Your task to perform on an android device: Set an alarm for 8am Image 0: 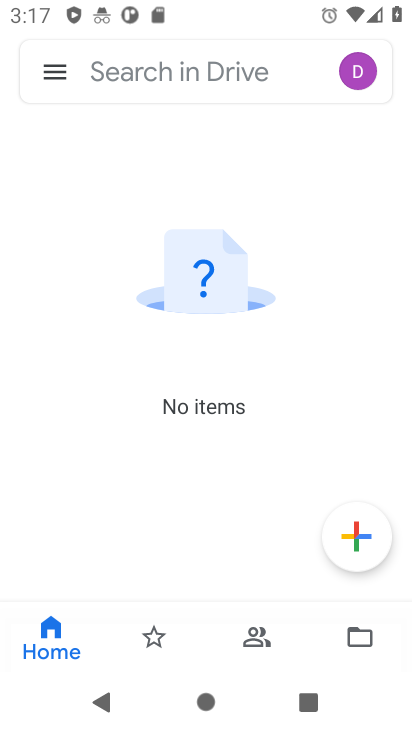
Step 0: press home button
Your task to perform on an android device: Set an alarm for 8am Image 1: 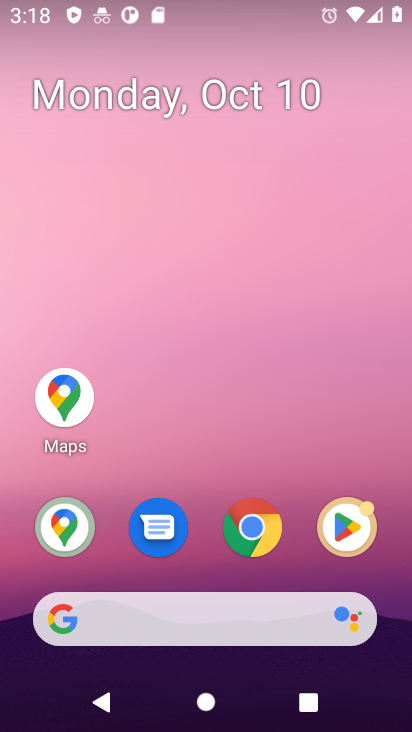
Step 1: drag from (136, 624) to (208, 73)
Your task to perform on an android device: Set an alarm for 8am Image 2: 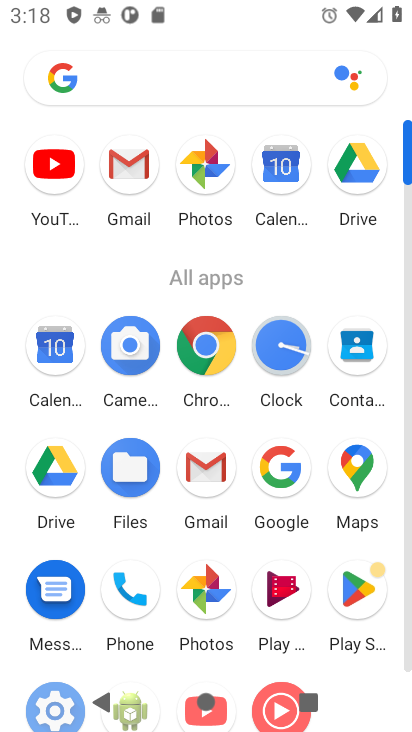
Step 2: click (279, 346)
Your task to perform on an android device: Set an alarm for 8am Image 3: 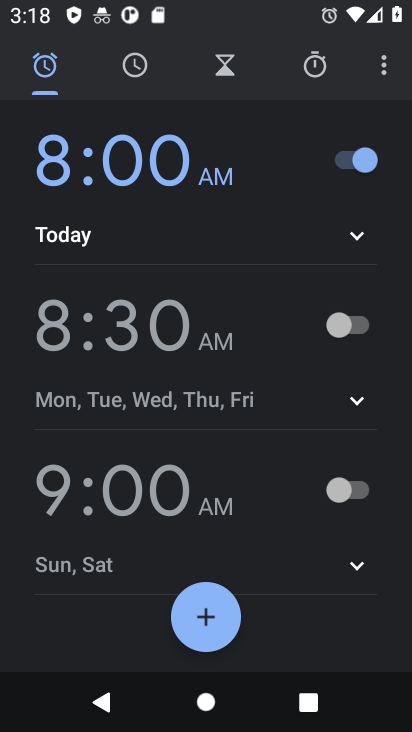
Step 3: click (205, 617)
Your task to perform on an android device: Set an alarm for 8am Image 4: 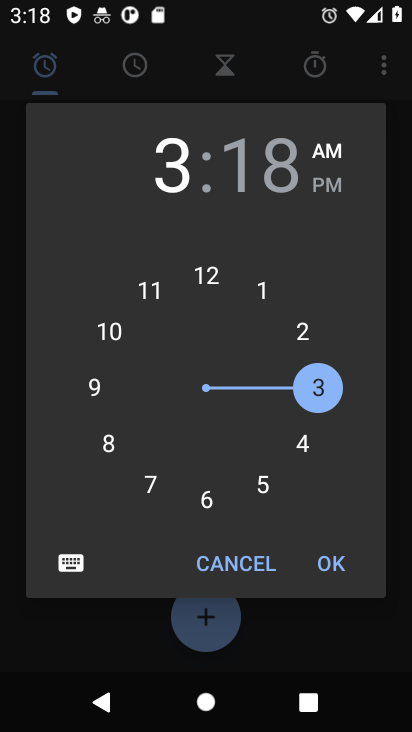
Step 4: click (109, 452)
Your task to perform on an android device: Set an alarm for 8am Image 5: 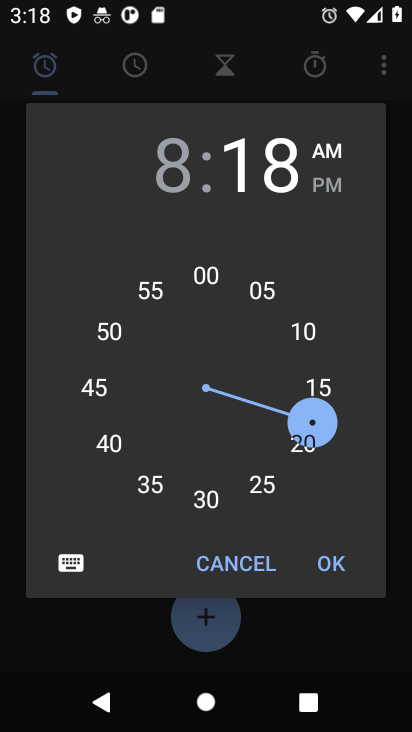
Step 5: click (205, 275)
Your task to perform on an android device: Set an alarm for 8am Image 6: 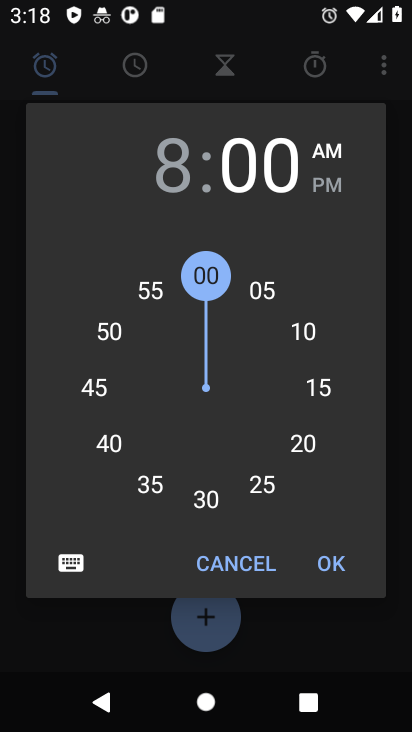
Step 6: click (330, 558)
Your task to perform on an android device: Set an alarm for 8am Image 7: 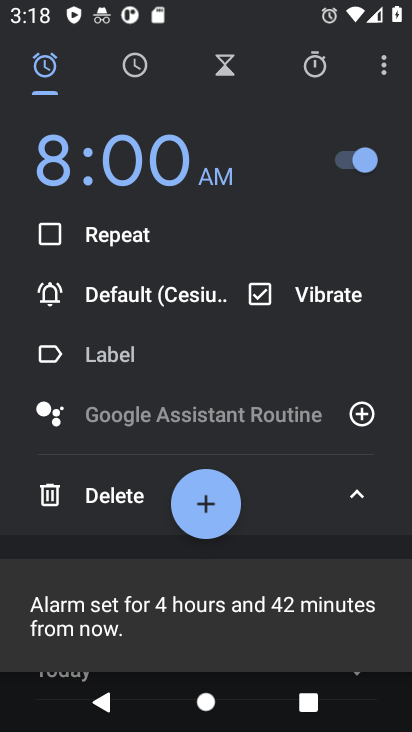
Step 7: task complete